Your task to perform on an android device: turn on translation in the chrome app Image 0: 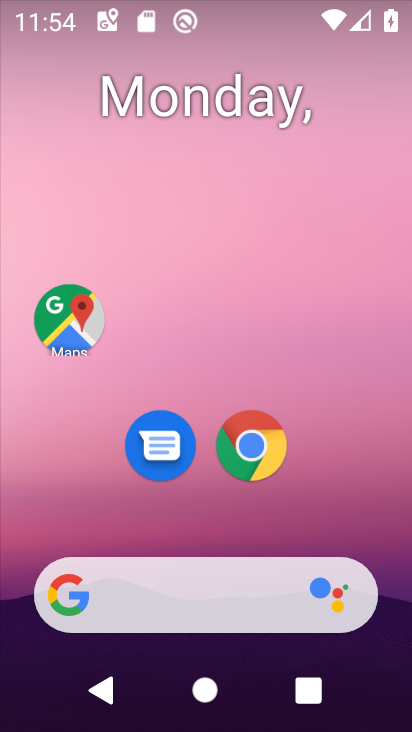
Step 0: click (250, 446)
Your task to perform on an android device: turn on translation in the chrome app Image 1: 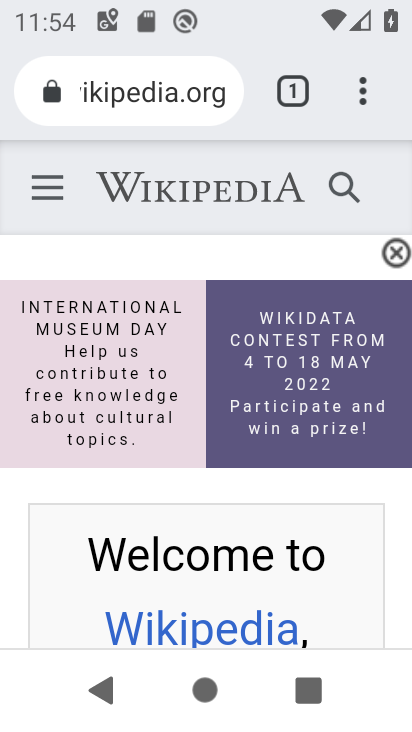
Step 1: click (363, 92)
Your task to perform on an android device: turn on translation in the chrome app Image 2: 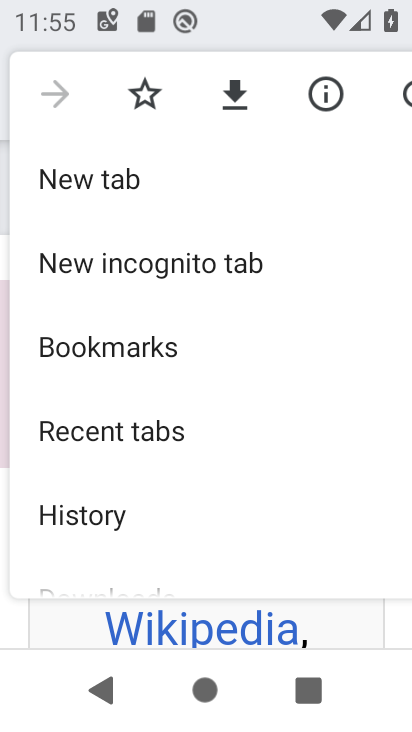
Step 2: drag from (198, 466) to (165, 77)
Your task to perform on an android device: turn on translation in the chrome app Image 3: 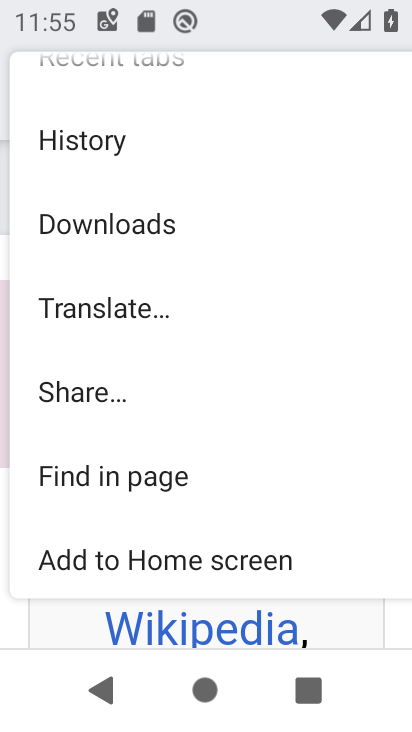
Step 3: drag from (143, 429) to (131, 69)
Your task to perform on an android device: turn on translation in the chrome app Image 4: 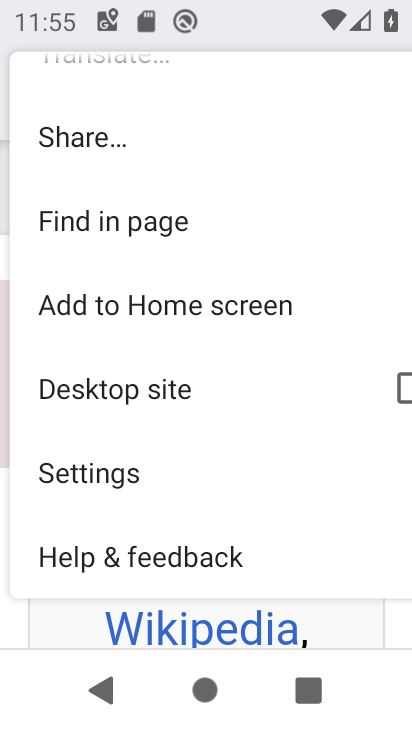
Step 4: click (112, 464)
Your task to perform on an android device: turn on translation in the chrome app Image 5: 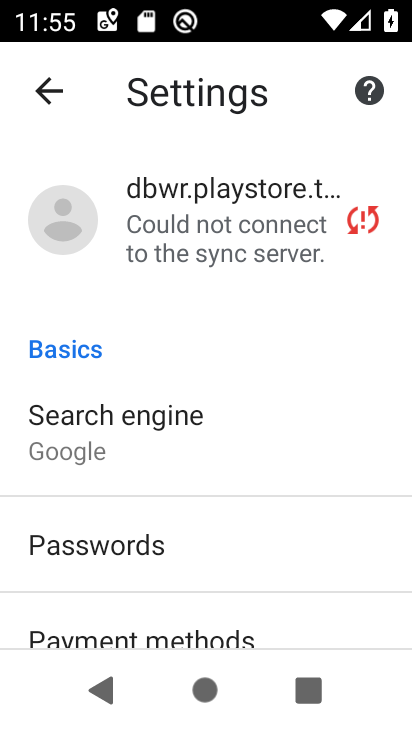
Step 5: drag from (158, 422) to (153, 213)
Your task to perform on an android device: turn on translation in the chrome app Image 6: 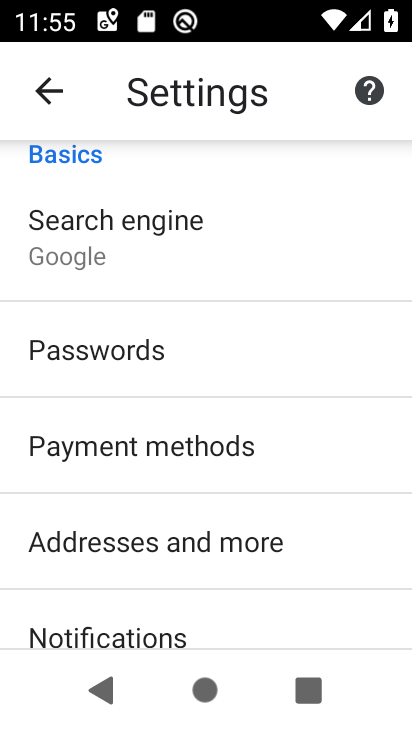
Step 6: drag from (221, 564) to (190, 229)
Your task to perform on an android device: turn on translation in the chrome app Image 7: 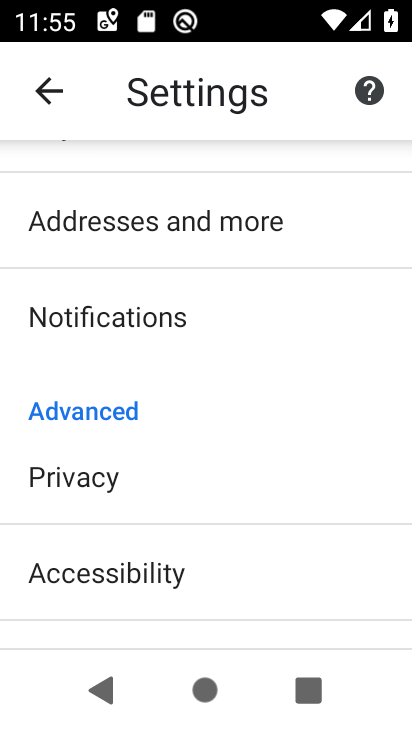
Step 7: drag from (221, 517) to (205, 118)
Your task to perform on an android device: turn on translation in the chrome app Image 8: 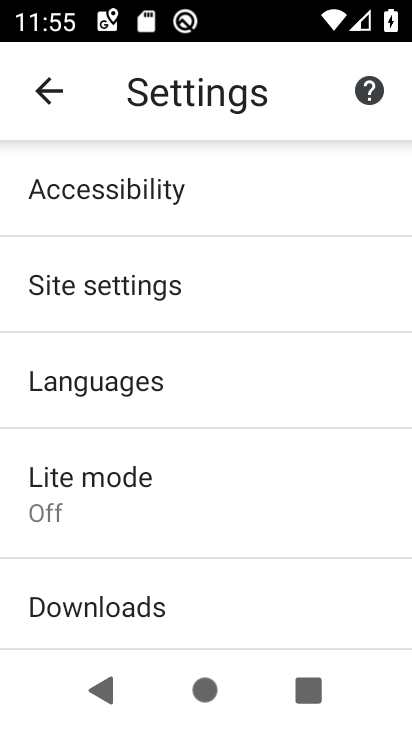
Step 8: click (104, 386)
Your task to perform on an android device: turn on translation in the chrome app Image 9: 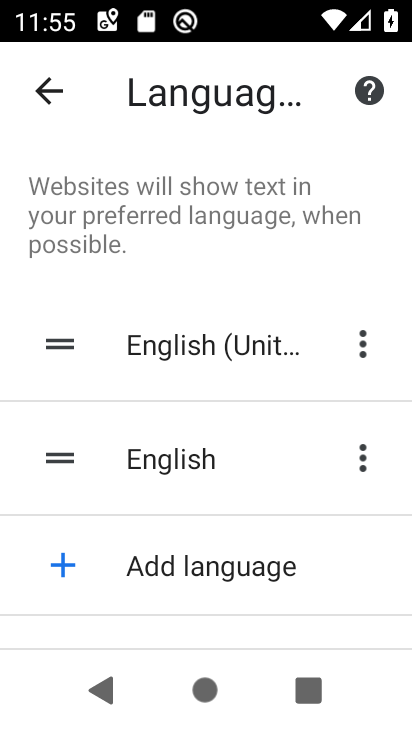
Step 9: task complete